Your task to perform on an android device: turn on javascript in the chrome app Image 0: 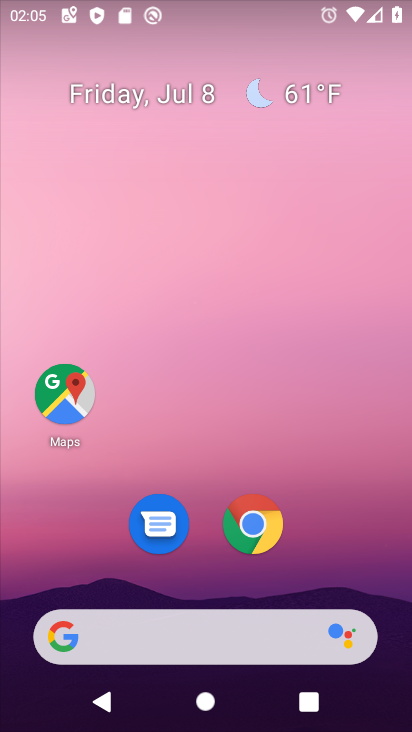
Step 0: drag from (229, 459) to (241, 237)
Your task to perform on an android device: turn on javascript in the chrome app Image 1: 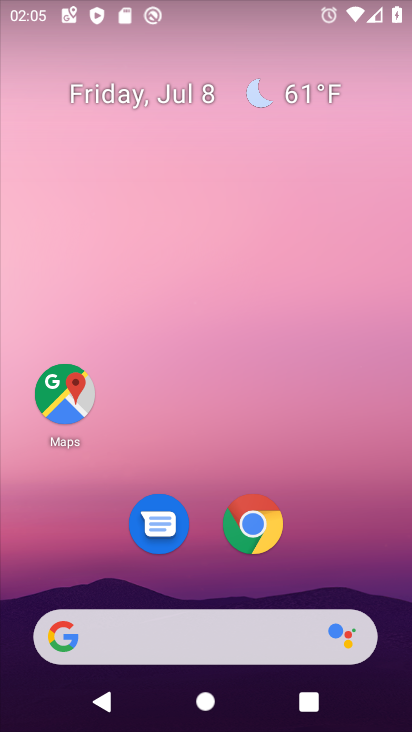
Step 1: click (256, 522)
Your task to perform on an android device: turn on javascript in the chrome app Image 2: 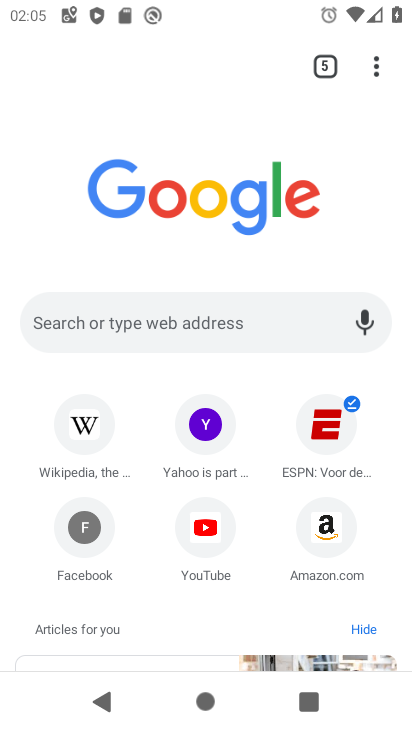
Step 2: click (375, 73)
Your task to perform on an android device: turn on javascript in the chrome app Image 3: 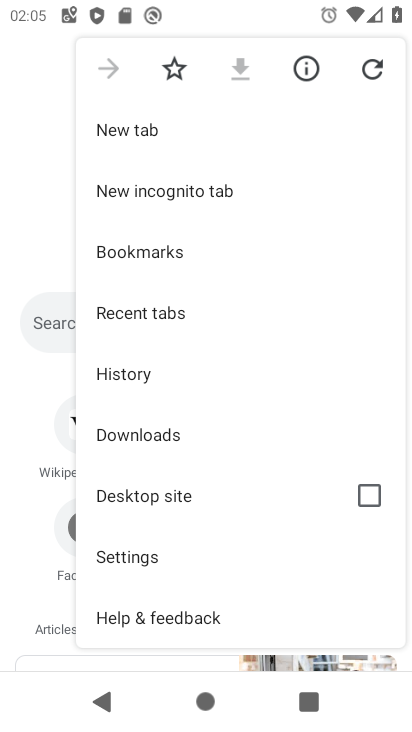
Step 3: click (163, 552)
Your task to perform on an android device: turn on javascript in the chrome app Image 4: 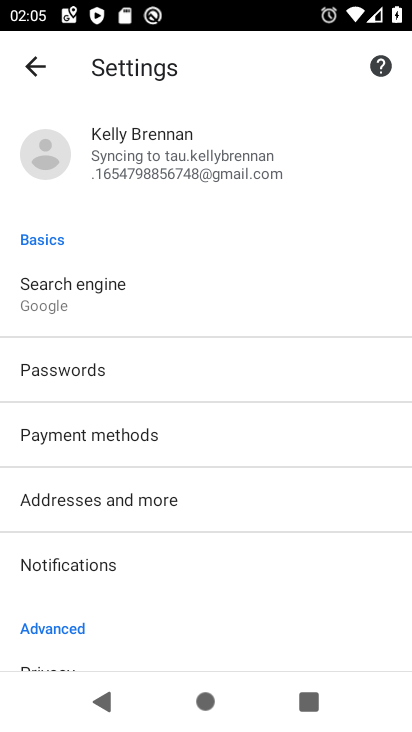
Step 4: drag from (161, 545) to (146, 293)
Your task to perform on an android device: turn on javascript in the chrome app Image 5: 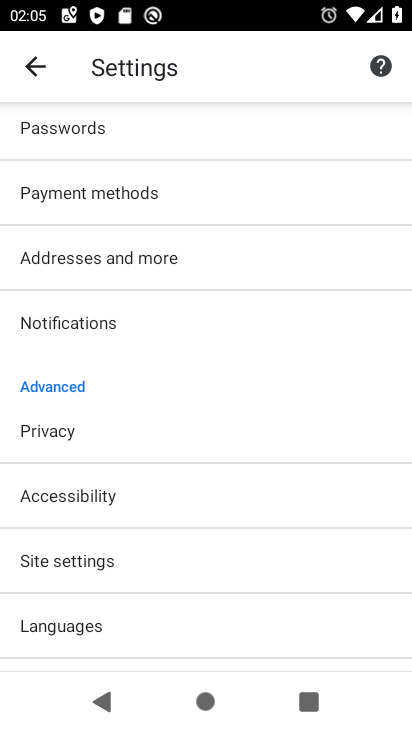
Step 5: click (96, 558)
Your task to perform on an android device: turn on javascript in the chrome app Image 6: 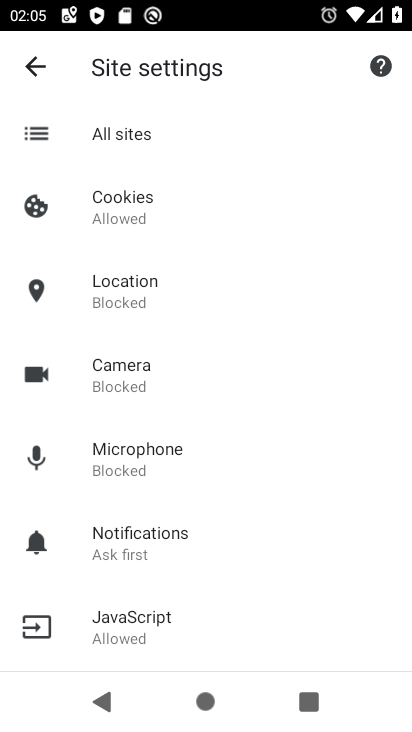
Step 6: click (147, 632)
Your task to perform on an android device: turn on javascript in the chrome app Image 7: 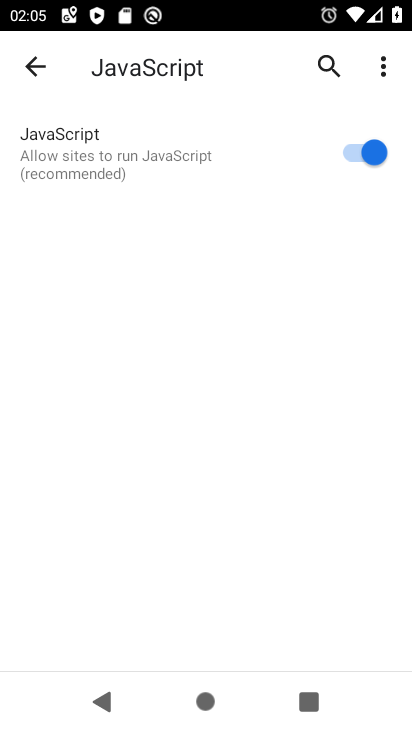
Step 7: task complete